Your task to perform on an android device: What is the news today? Image 0: 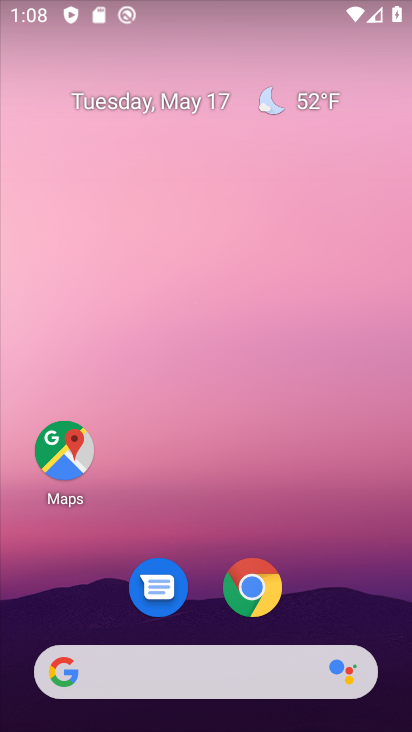
Step 0: click (247, 655)
Your task to perform on an android device: What is the news today? Image 1: 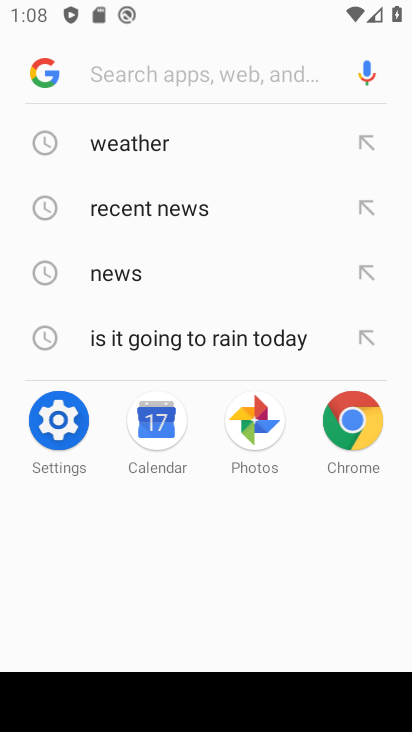
Step 1: click (187, 148)
Your task to perform on an android device: What is the news today? Image 2: 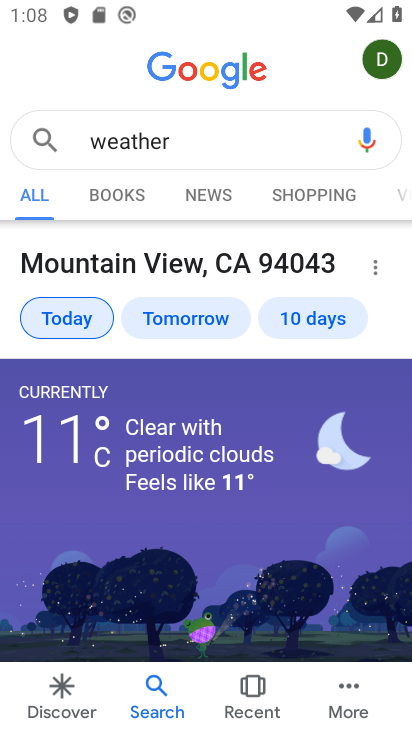
Step 2: click (181, 125)
Your task to perform on an android device: What is the news today? Image 3: 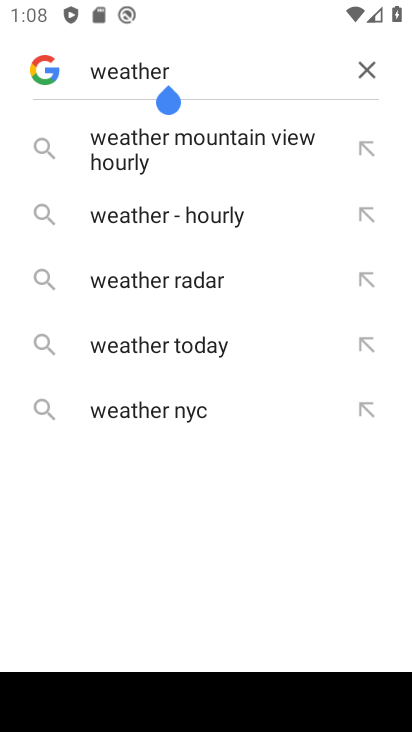
Step 3: click (362, 73)
Your task to perform on an android device: What is the news today? Image 4: 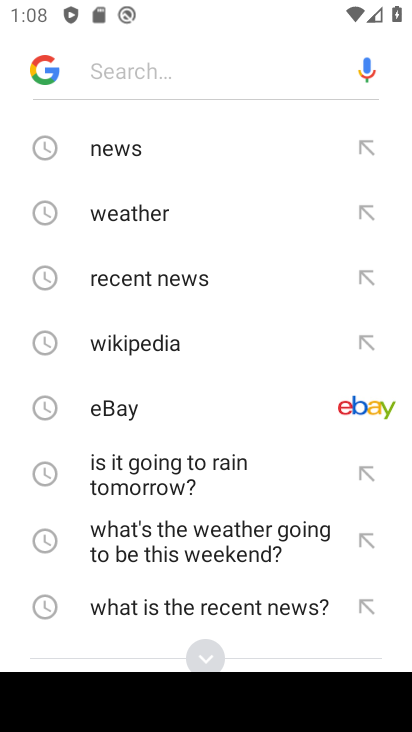
Step 4: click (194, 161)
Your task to perform on an android device: What is the news today? Image 5: 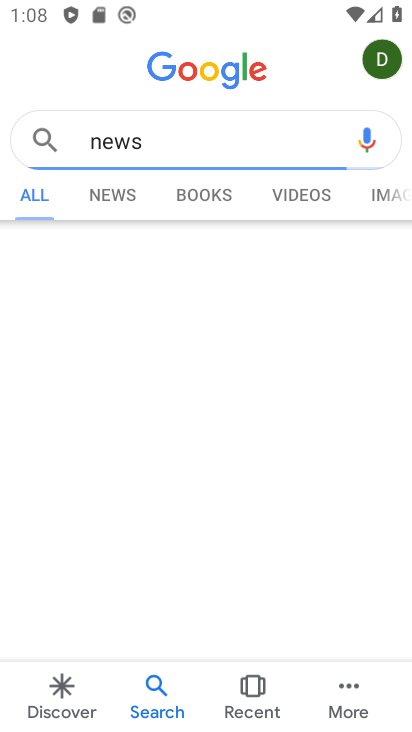
Step 5: task complete